Your task to perform on an android device: Open notification settings Image 0: 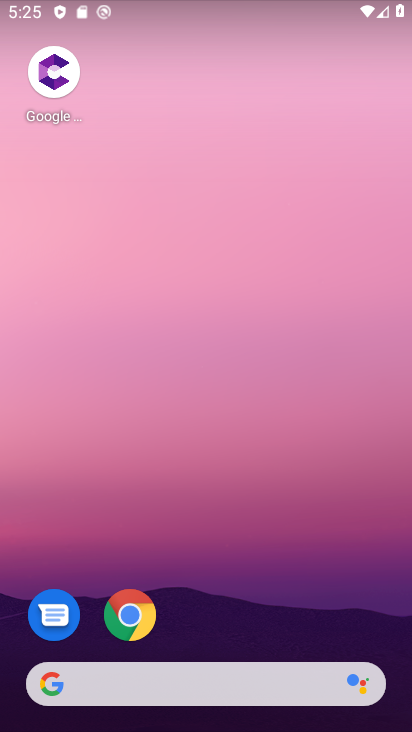
Step 0: drag from (229, 634) to (291, 157)
Your task to perform on an android device: Open notification settings Image 1: 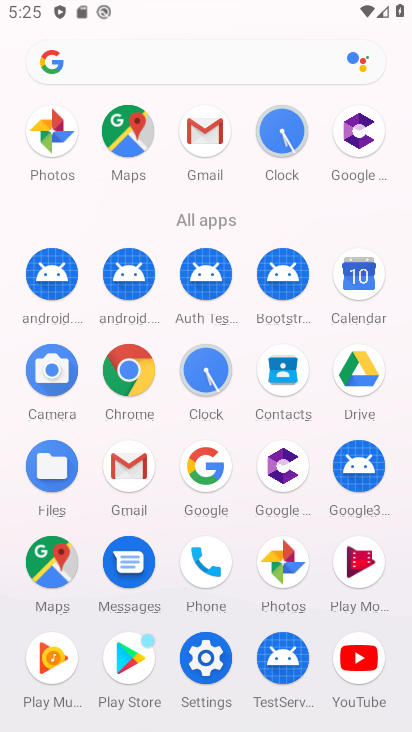
Step 1: click (220, 657)
Your task to perform on an android device: Open notification settings Image 2: 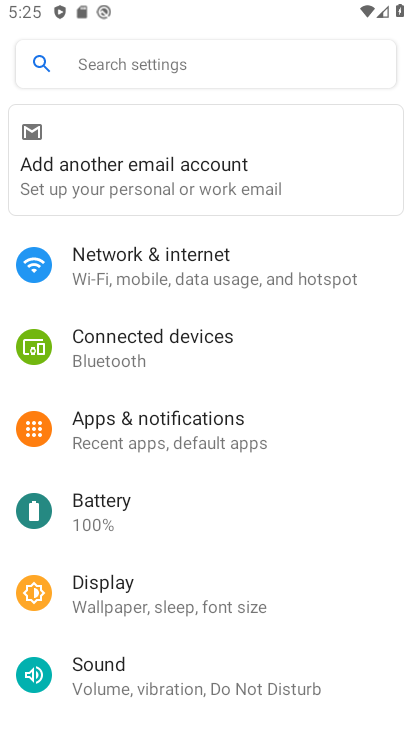
Step 2: click (200, 444)
Your task to perform on an android device: Open notification settings Image 3: 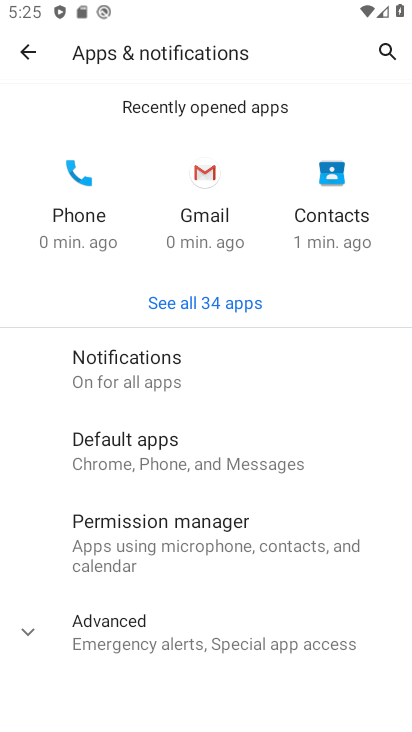
Step 3: click (143, 380)
Your task to perform on an android device: Open notification settings Image 4: 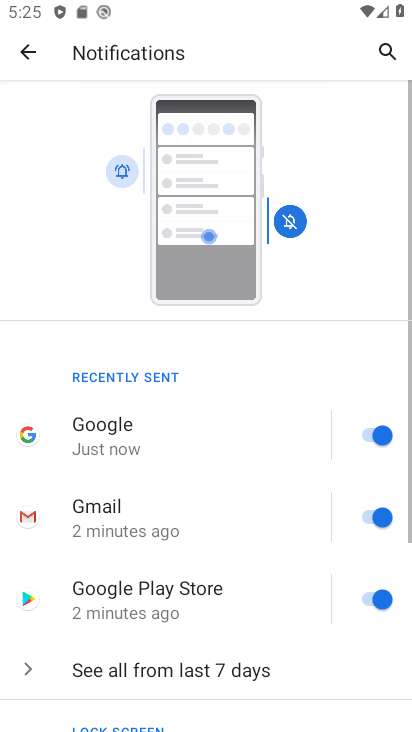
Step 4: task complete